Your task to perform on an android device: toggle notification dots Image 0: 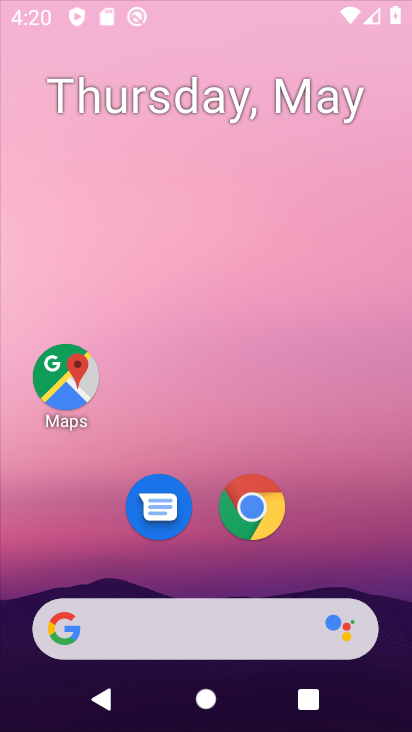
Step 0: drag from (241, 641) to (111, 87)
Your task to perform on an android device: toggle notification dots Image 1: 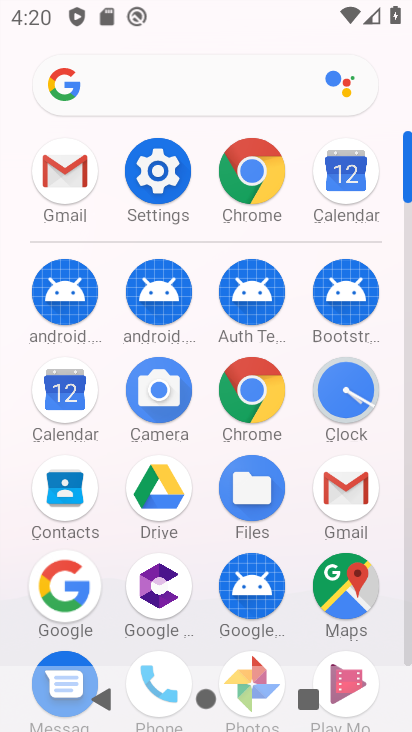
Step 1: click (161, 177)
Your task to perform on an android device: toggle notification dots Image 2: 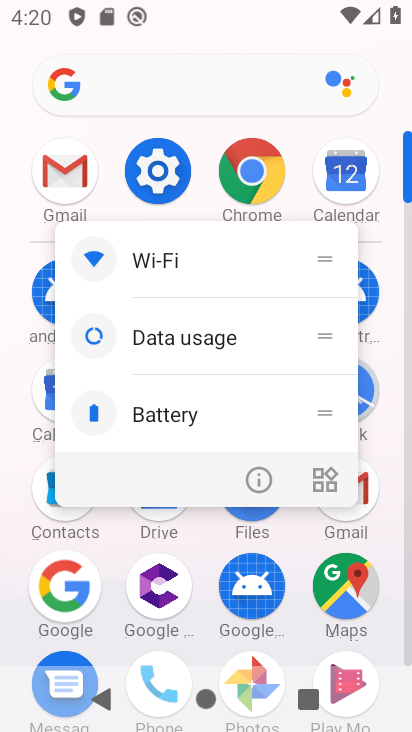
Step 2: click (145, 179)
Your task to perform on an android device: toggle notification dots Image 3: 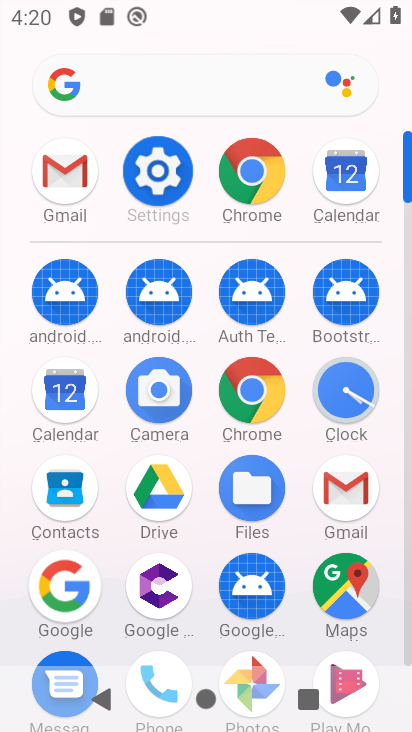
Step 3: click (148, 178)
Your task to perform on an android device: toggle notification dots Image 4: 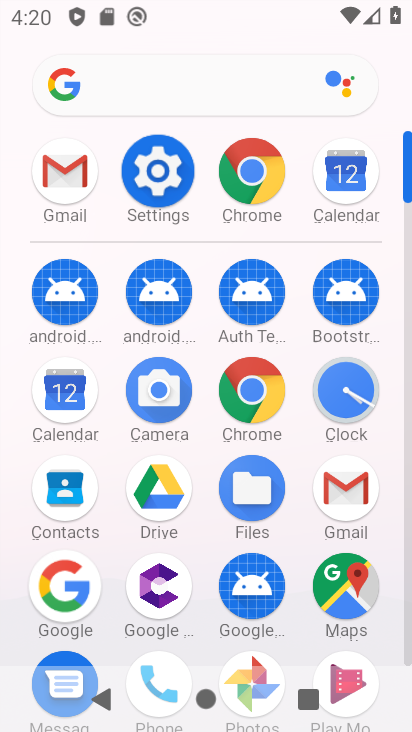
Step 4: click (150, 178)
Your task to perform on an android device: toggle notification dots Image 5: 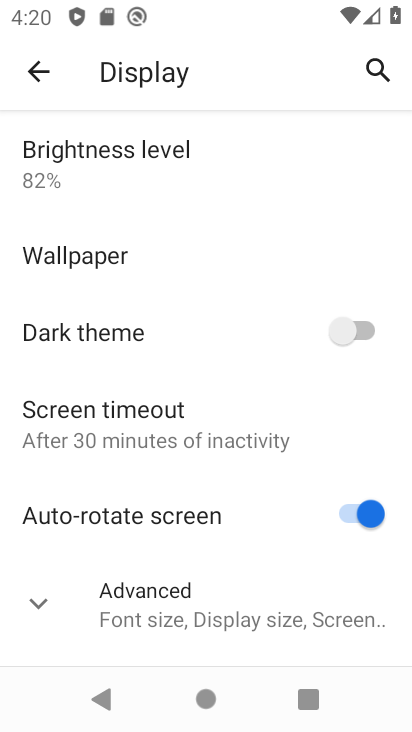
Step 5: click (34, 72)
Your task to perform on an android device: toggle notification dots Image 6: 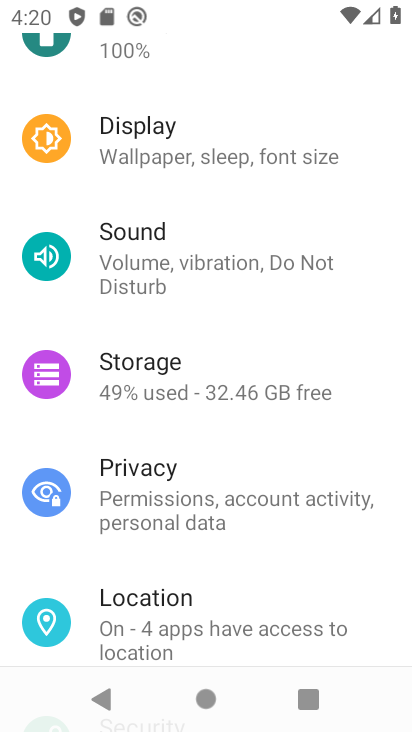
Step 6: drag from (184, 520) to (171, 117)
Your task to perform on an android device: toggle notification dots Image 7: 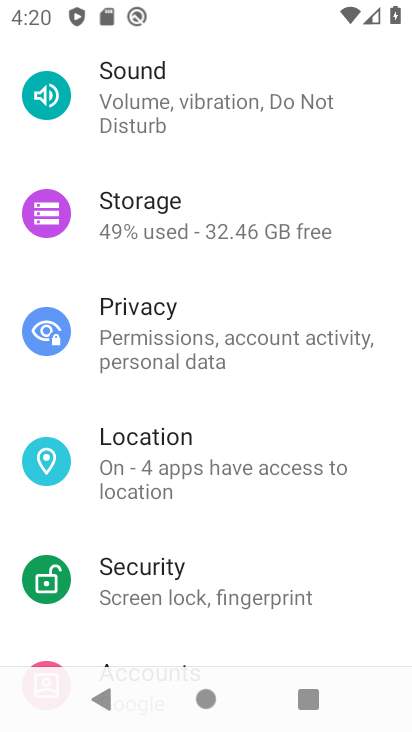
Step 7: drag from (194, 356) to (118, 78)
Your task to perform on an android device: toggle notification dots Image 8: 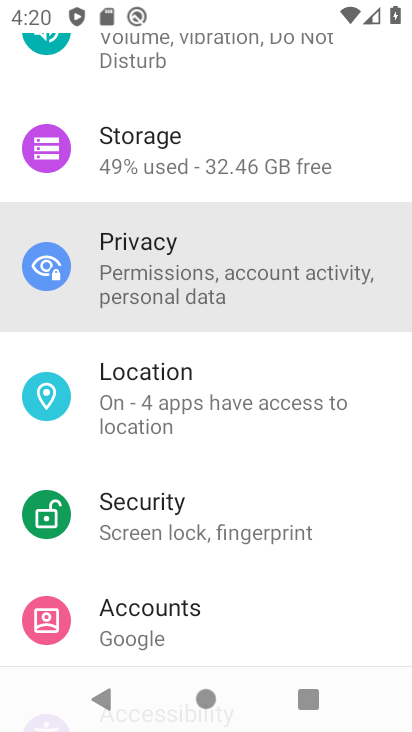
Step 8: drag from (251, 489) to (190, 93)
Your task to perform on an android device: toggle notification dots Image 9: 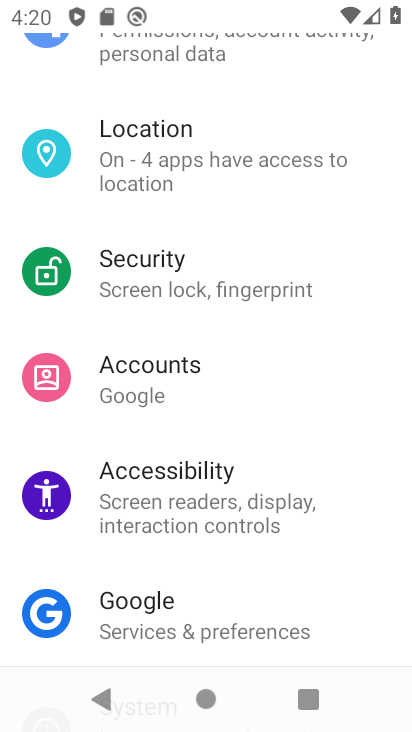
Step 9: drag from (266, 349) to (244, 48)
Your task to perform on an android device: toggle notification dots Image 10: 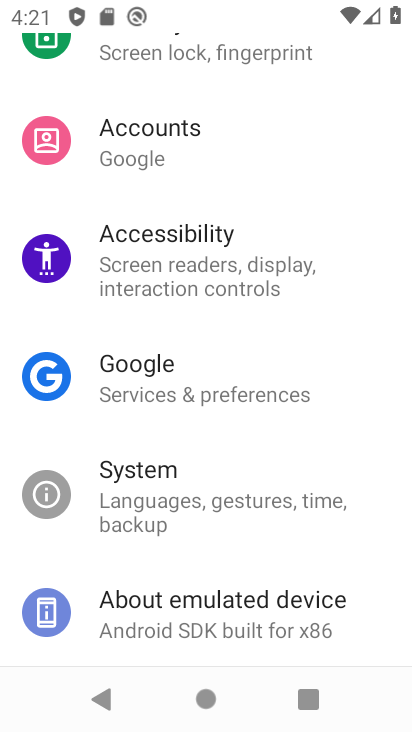
Step 10: drag from (141, 264) to (200, 523)
Your task to perform on an android device: toggle notification dots Image 11: 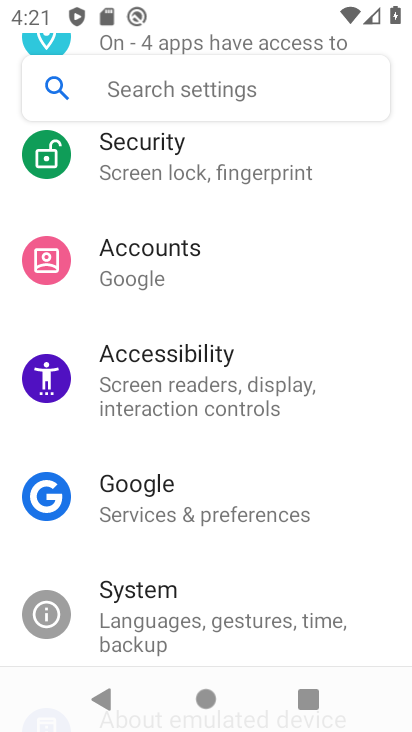
Step 11: drag from (161, 245) to (215, 488)
Your task to perform on an android device: toggle notification dots Image 12: 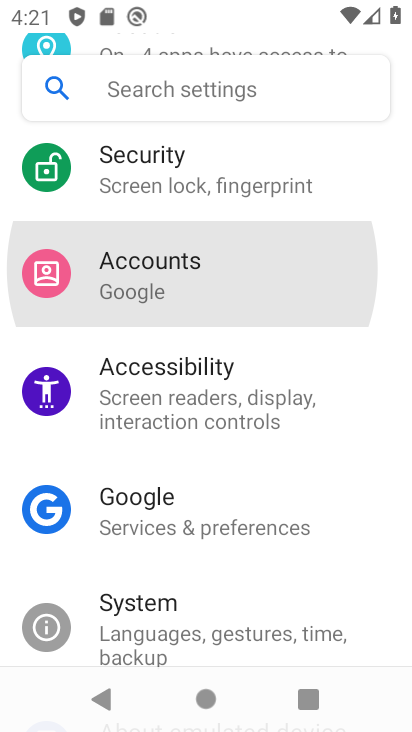
Step 12: drag from (159, 240) to (227, 496)
Your task to perform on an android device: toggle notification dots Image 13: 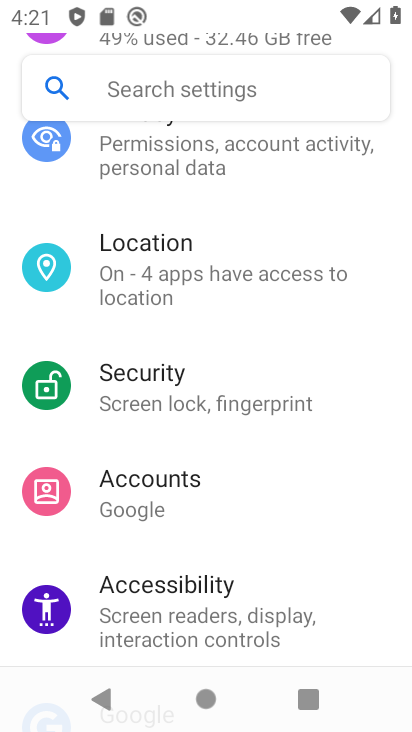
Step 13: drag from (193, 136) to (252, 489)
Your task to perform on an android device: toggle notification dots Image 14: 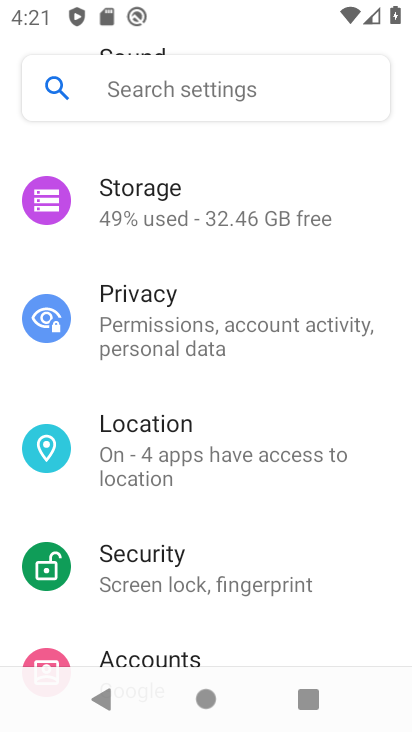
Step 14: drag from (172, 321) to (216, 617)
Your task to perform on an android device: toggle notification dots Image 15: 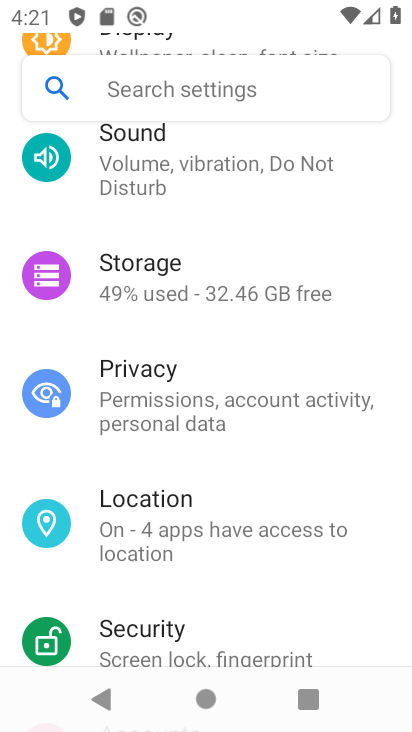
Step 15: drag from (133, 241) to (226, 567)
Your task to perform on an android device: toggle notification dots Image 16: 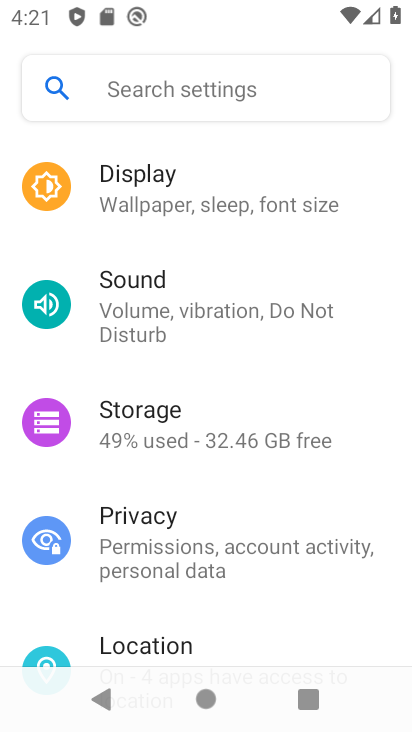
Step 16: drag from (154, 235) to (204, 523)
Your task to perform on an android device: toggle notification dots Image 17: 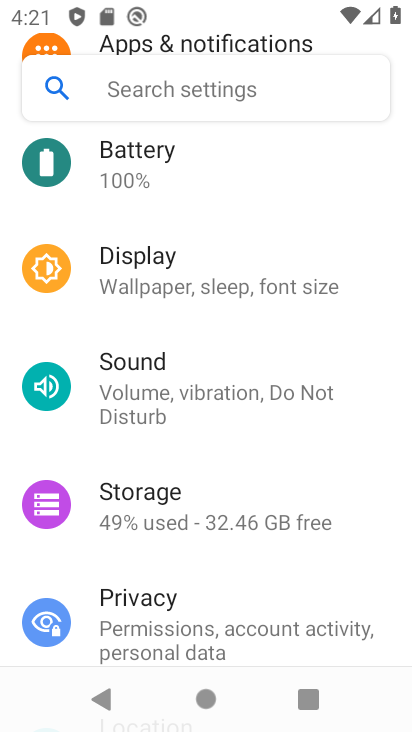
Step 17: drag from (187, 441) to (218, 531)
Your task to perform on an android device: toggle notification dots Image 18: 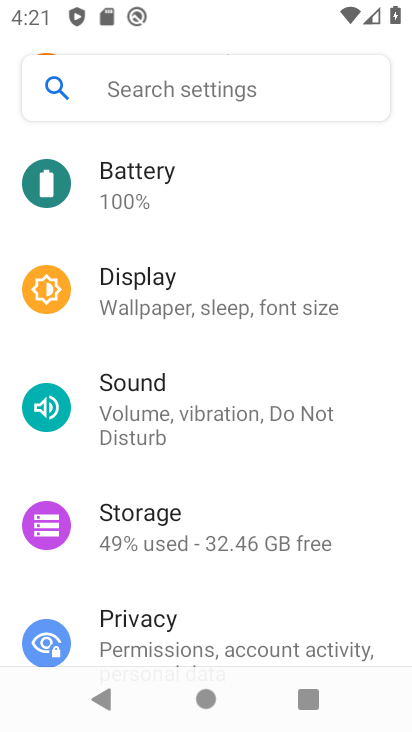
Step 18: drag from (85, 289) to (191, 485)
Your task to perform on an android device: toggle notification dots Image 19: 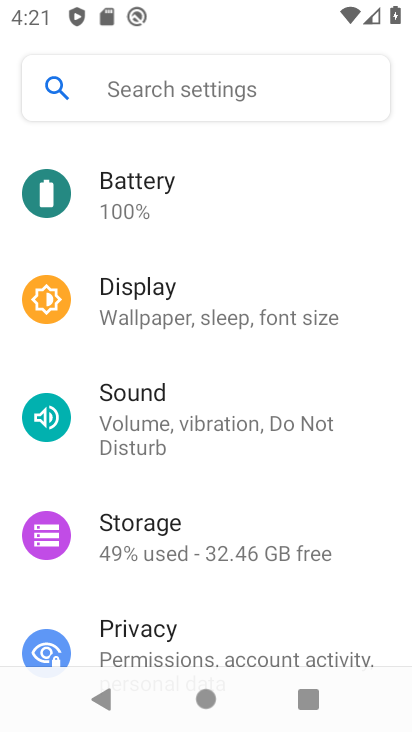
Step 19: drag from (148, 288) to (187, 418)
Your task to perform on an android device: toggle notification dots Image 20: 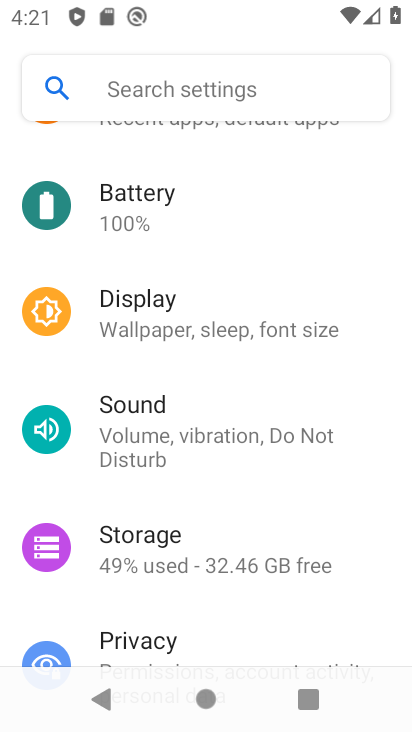
Step 20: drag from (141, 286) to (187, 433)
Your task to perform on an android device: toggle notification dots Image 21: 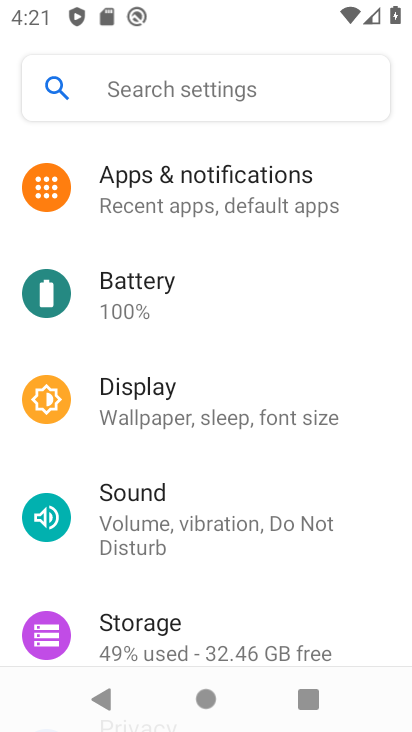
Step 21: drag from (135, 231) to (178, 353)
Your task to perform on an android device: toggle notification dots Image 22: 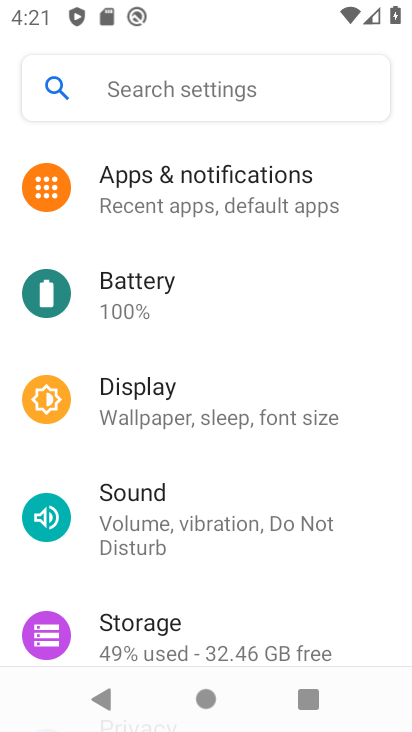
Step 22: drag from (127, 244) to (161, 380)
Your task to perform on an android device: toggle notification dots Image 23: 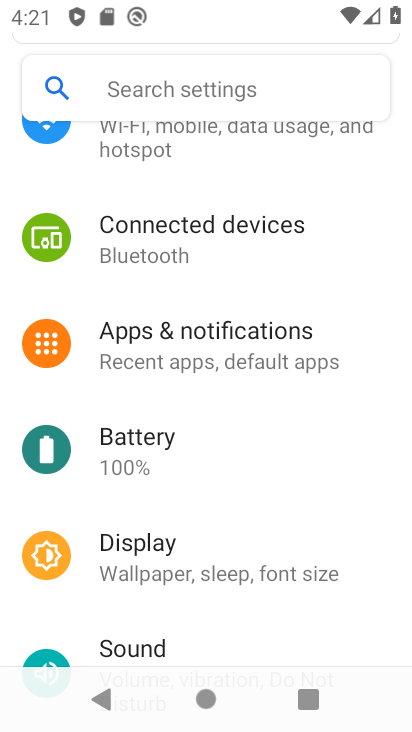
Step 23: drag from (144, 178) to (199, 436)
Your task to perform on an android device: toggle notification dots Image 24: 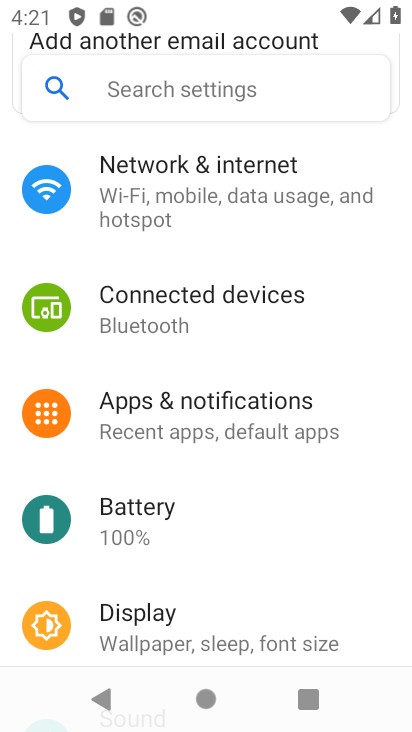
Step 24: drag from (156, 438) to (156, 553)
Your task to perform on an android device: toggle notification dots Image 25: 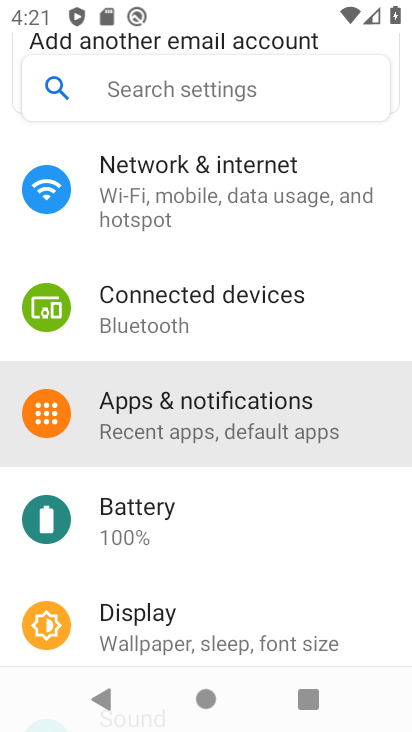
Step 25: drag from (172, 384) to (211, 484)
Your task to perform on an android device: toggle notification dots Image 26: 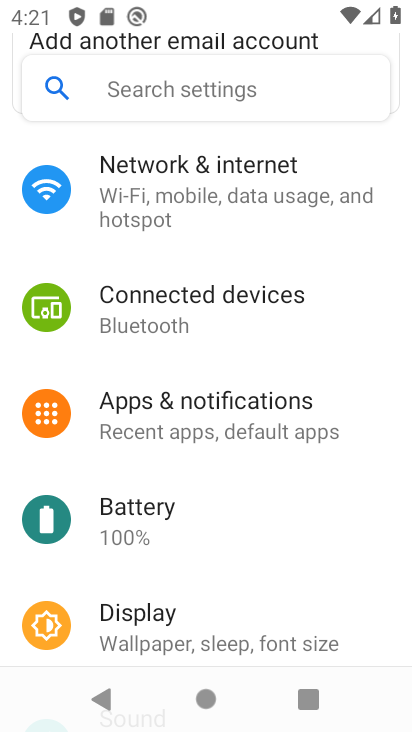
Step 26: drag from (142, 278) to (220, 548)
Your task to perform on an android device: toggle notification dots Image 27: 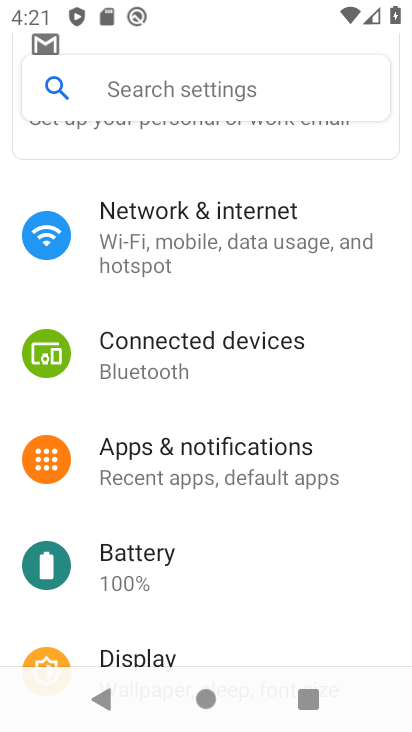
Step 27: click (212, 450)
Your task to perform on an android device: toggle notification dots Image 28: 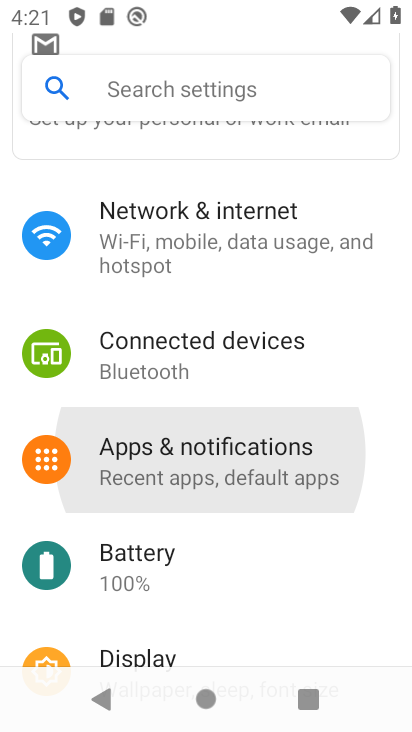
Step 28: click (212, 451)
Your task to perform on an android device: toggle notification dots Image 29: 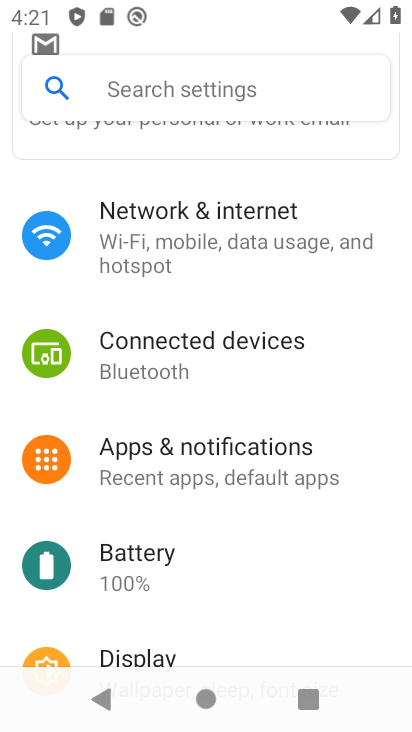
Step 29: click (208, 461)
Your task to perform on an android device: toggle notification dots Image 30: 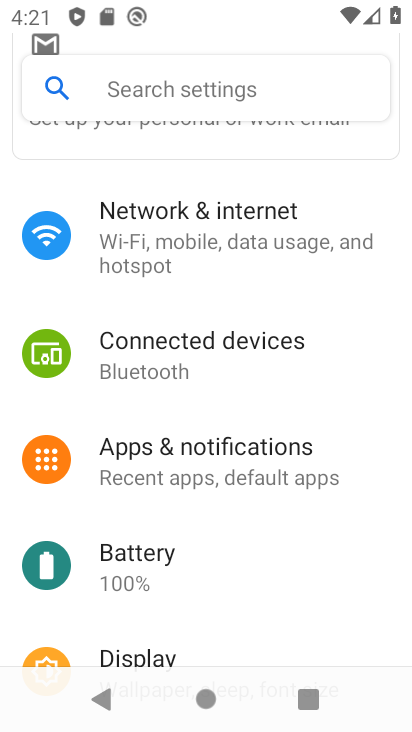
Step 30: click (194, 447)
Your task to perform on an android device: toggle notification dots Image 31: 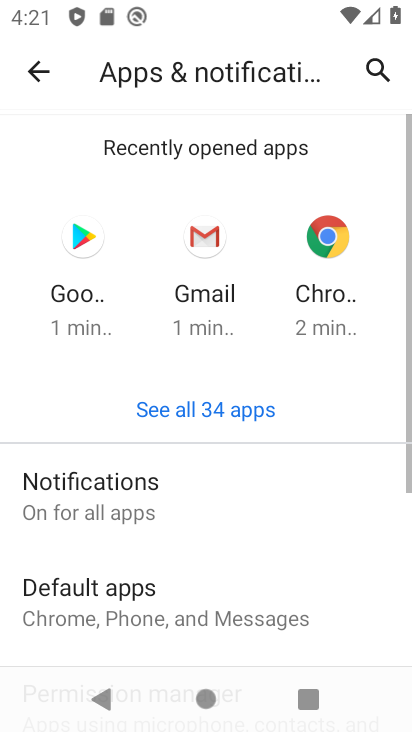
Step 31: drag from (202, 475) to (104, 140)
Your task to perform on an android device: toggle notification dots Image 32: 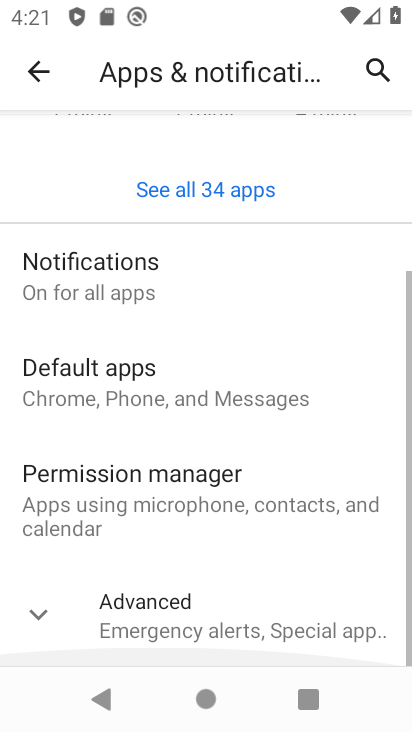
Step 32: drag from (152, 460) to (100, 144)
Your task to perform on an android device: toggle notification dots Image 33: 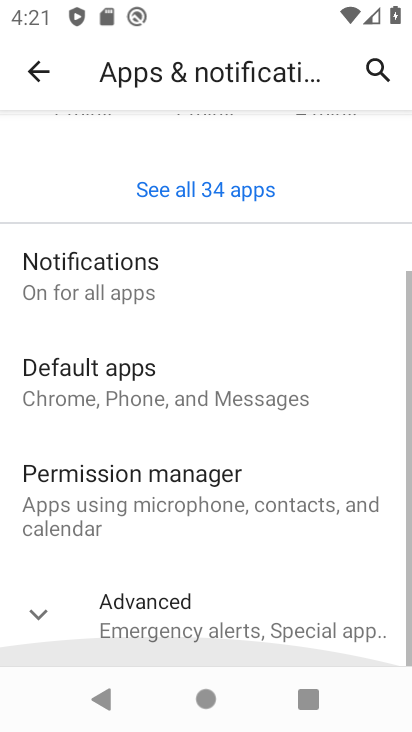
Step 33: drag from (158, 437) to (142, 113)
Your task to perform on an android device: toggle notification dots Image 34: 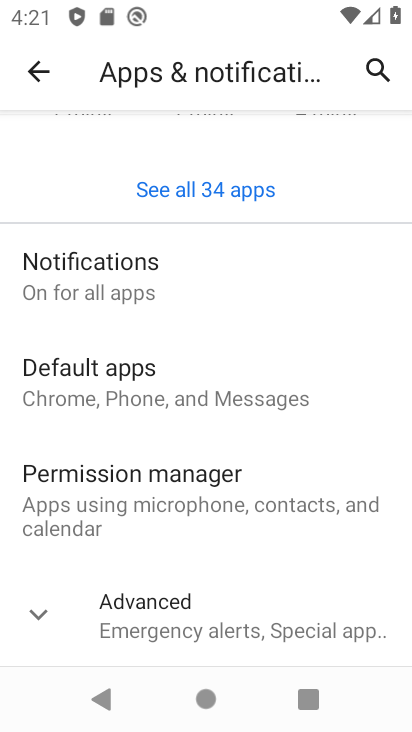
Step 34: click (87, 278)
Your task to perform on an android device: toggle notification dots Image 35: 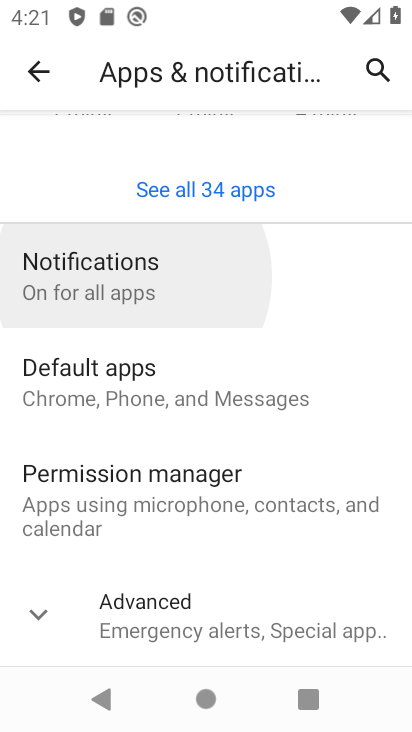
Step 35: click (93, 279)
Your task to perform on an android device: toggle notification dots Image 36: 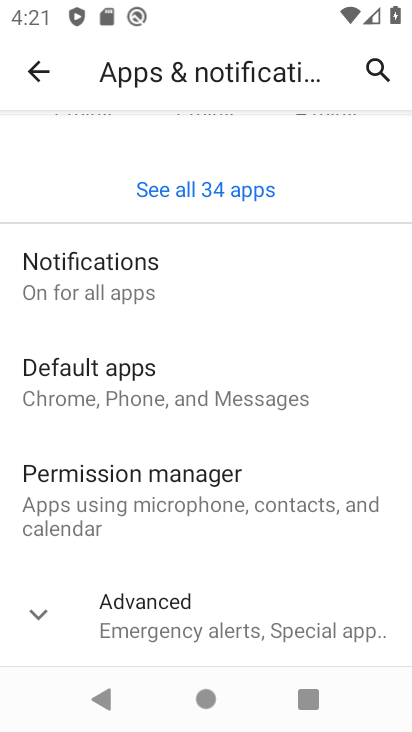
Step 36: click (95, 278)
Your task to perform on an android device: toggle notification dots Image 37: 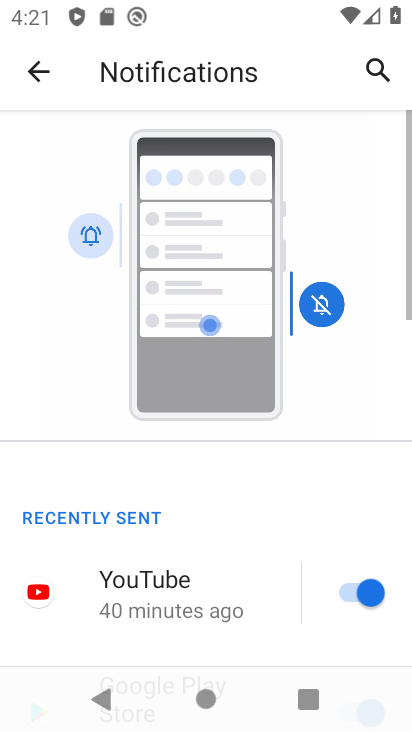
Step 37: drag from (155, 564) to (100, 146)
Your task to perform on an android device: toggle notification dots Image 38: 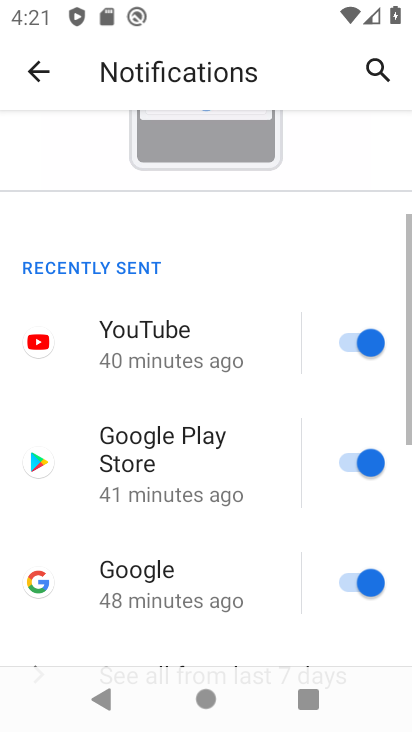
Step 38: drag from (168, 537) to (220, 204)
Your task to perform on an android device: toggle notification dots Image 39: 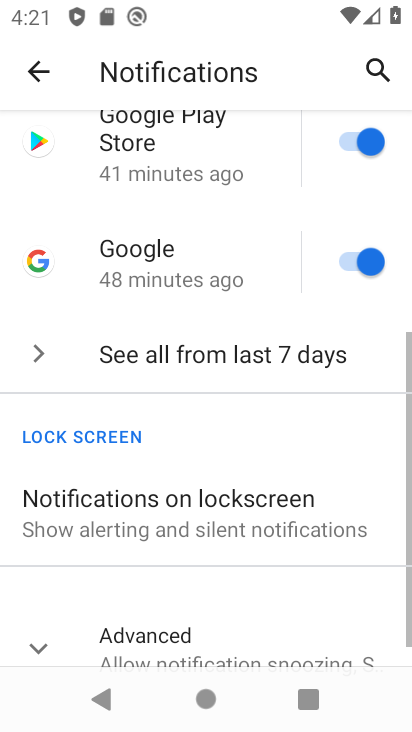
Step 39: drag from (266, 516) to (262, 240)
Your task to perform on an android device: toggle notification dots Image 40: 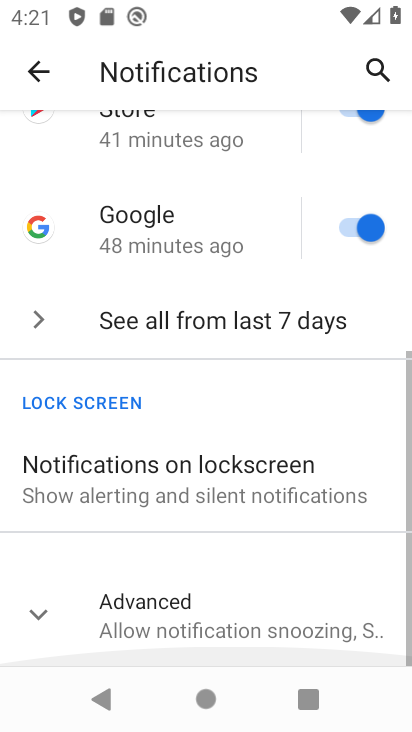
Step 40: drag from (221, 456) to (237, 331)
Your task to perform on an android device: toggle notification dots Image 41: 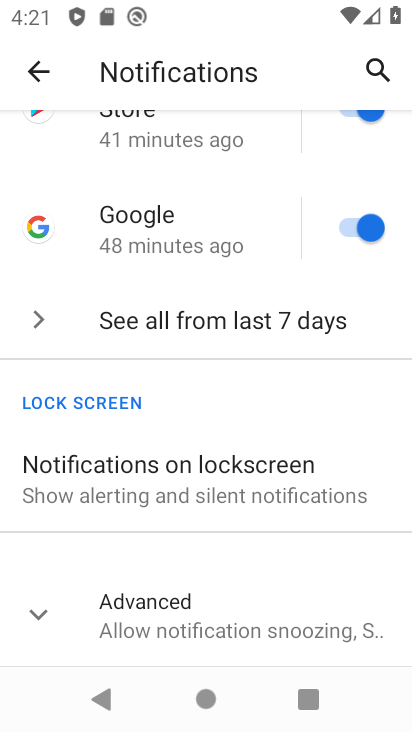
Step 41: click (149, 608)
Your task to perform on an android device: toggle notification dots Image 42: 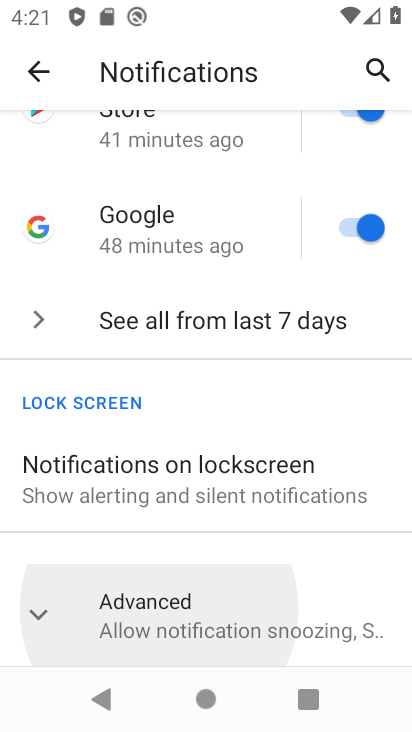
Step 42: click (149, 603)
Your task to perform on an android device: toggle notification dots Image 43: 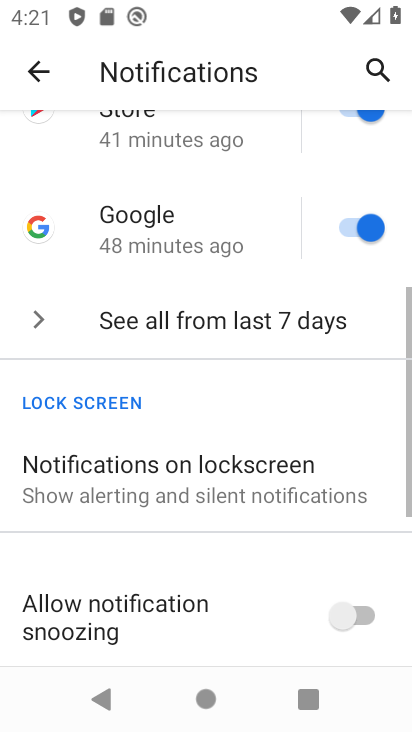
Step 43: drag from (195, 495) to (159, 127)
Your task to perform on an android device: toggle notification dots Image 44: 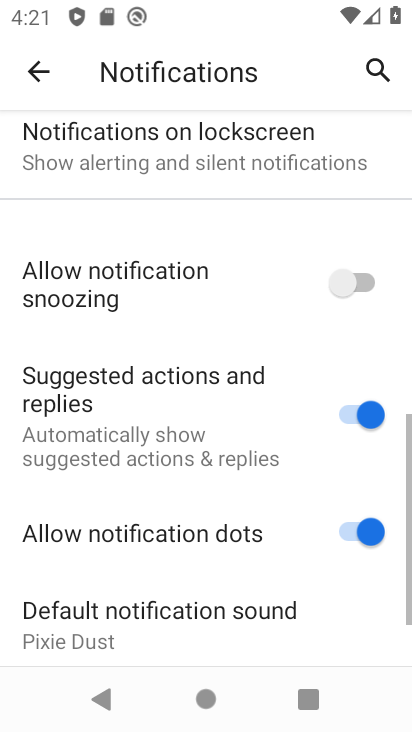
Step 44: drag from (172, 467) to (92, 41)
Your task to perform on an android device: toggle notification dots Image 45: 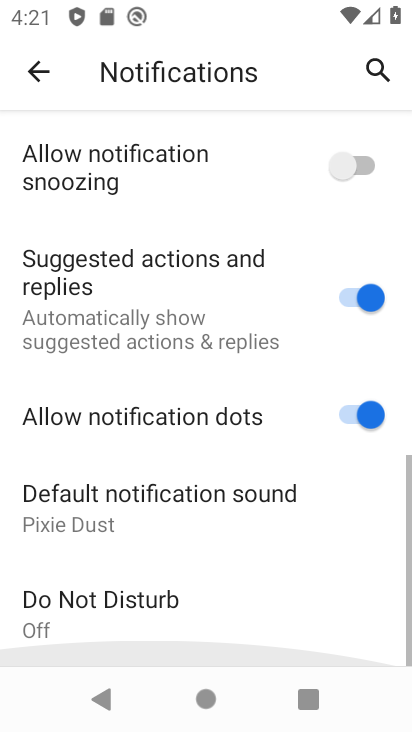
Step 45: drag from (180, 437) to (139, 117)
Your task to perform on an android device: toggle notification dots Image 46: 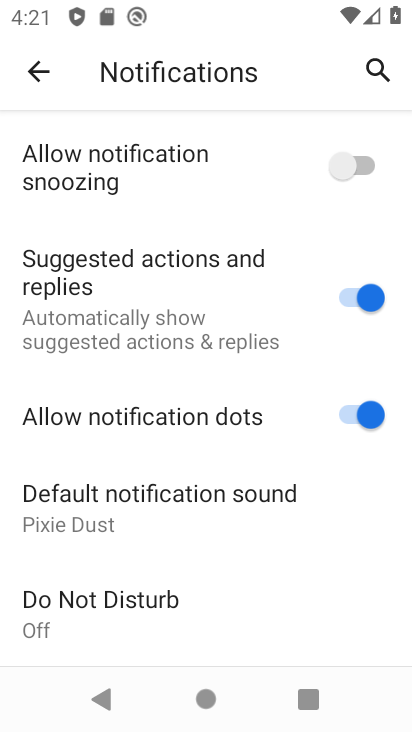
Step 46: click (361, 409)
Your task to perform on an android device: toggle notification dots Image 47: 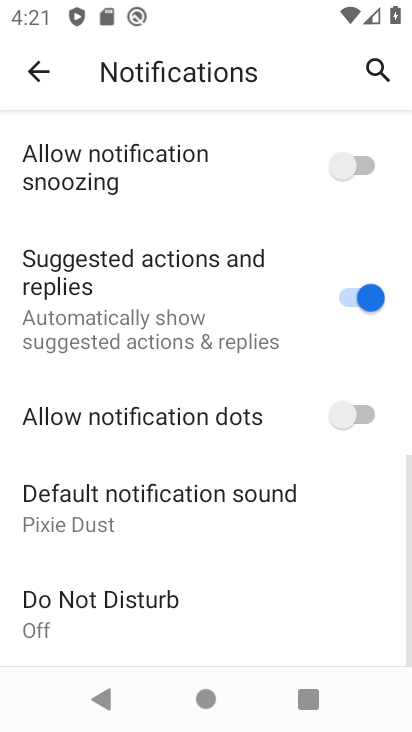
Step 47: task complete